Your task to perform on an android device: turn off airplane mode Image 0: 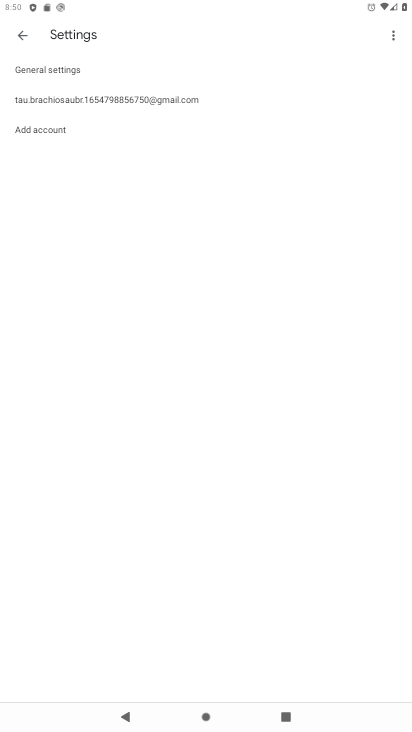
Step 0: press home button
Your task to perform on an android device: turn off airplane mode Image 1: 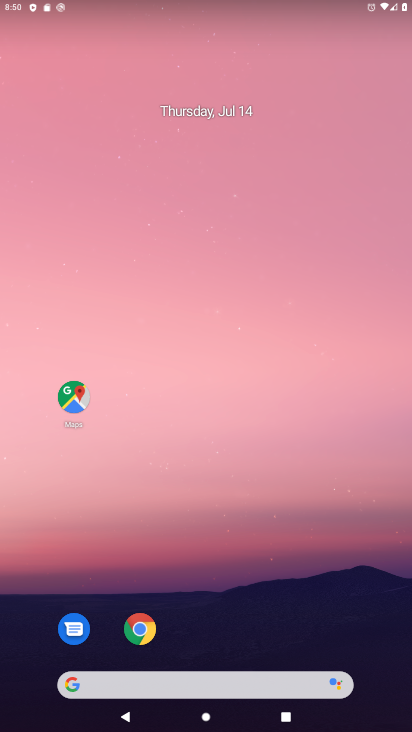
Step 1: drag from (222, 635) to (240, 14)
Your task to perform on an android device: turn off airplane mode Image 2: 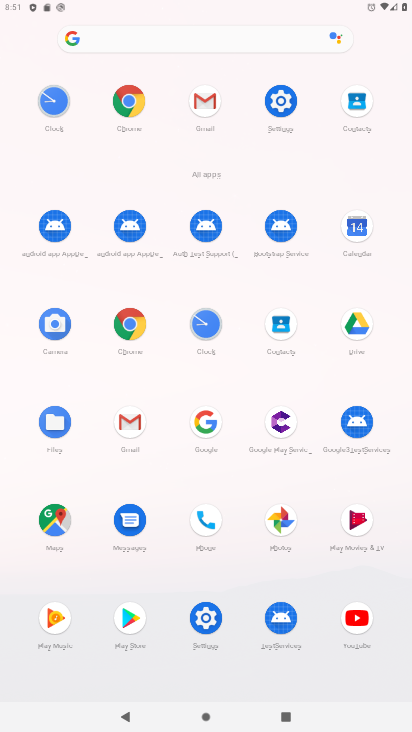
Step 2: click (275, 111)
Your task to perform on an android device: turn off airplane mode Image 3: 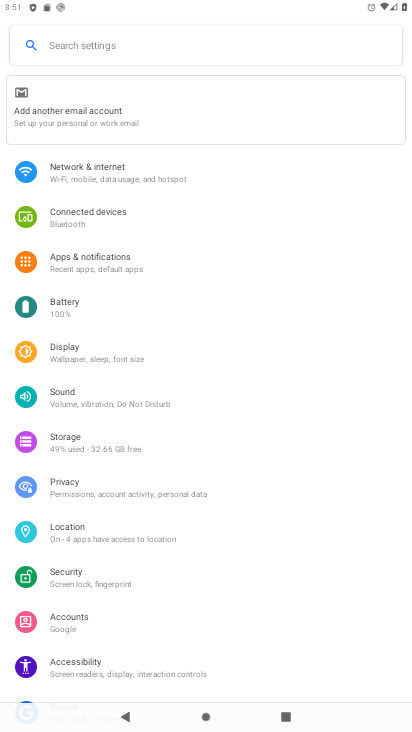
Step 3: click (134, 179)
Your task to perform on an android device: turn off airplane mode Image 4: 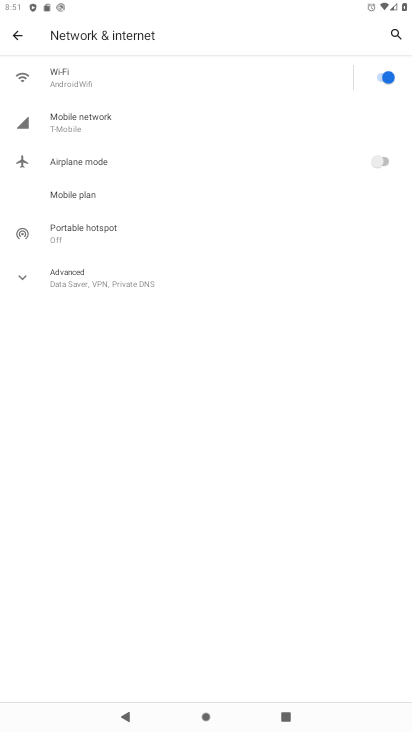
Step 4: task complete